Your task to perform on an android device: toggle show notifications on the lock screen Image 0: 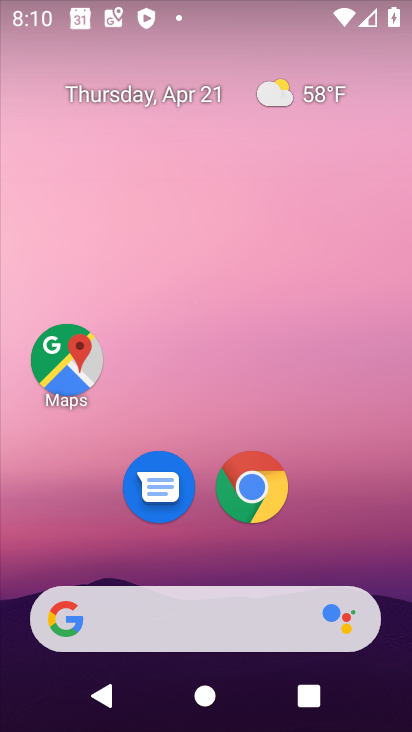
Step 0: drag from (329, 481) to (291, 40)
Your task to perform on an android device: toggle show notifications on the lock screen Image 1: 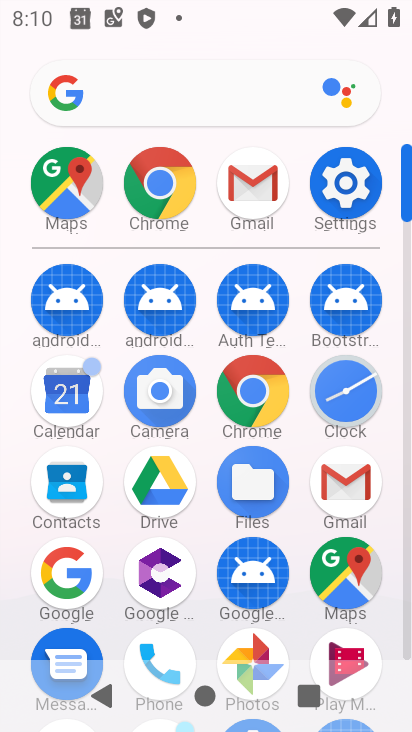
Step 1: click (341, 179)
Your task to perform on an android device: toggle show notifications on the lock screen Image 2: 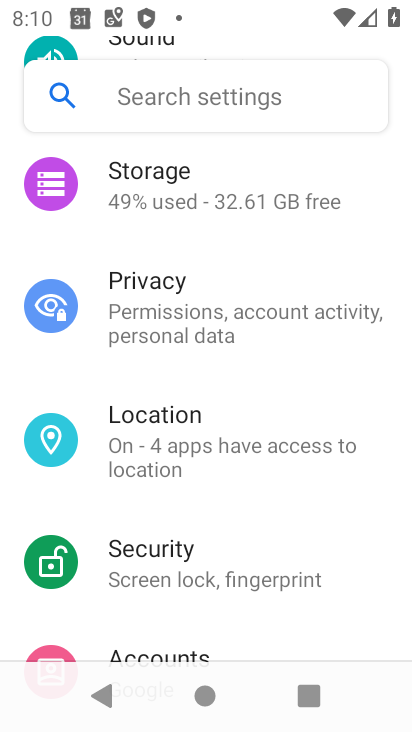
Step 2: drag from (299, 213) to (320, 590)
Your task to perform on an android device: toggle show notifications on the lock screen Image 3: 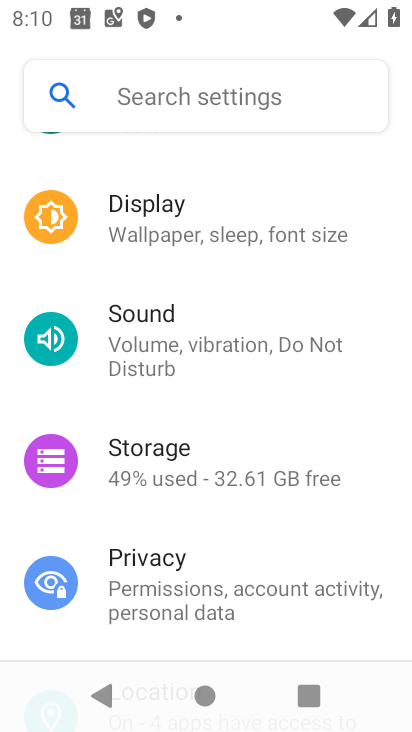
Step 3: drag from (285, 279) to (293, 585)
Your task to perform on an android device: toggle show notifications on the lock screen Image 4: 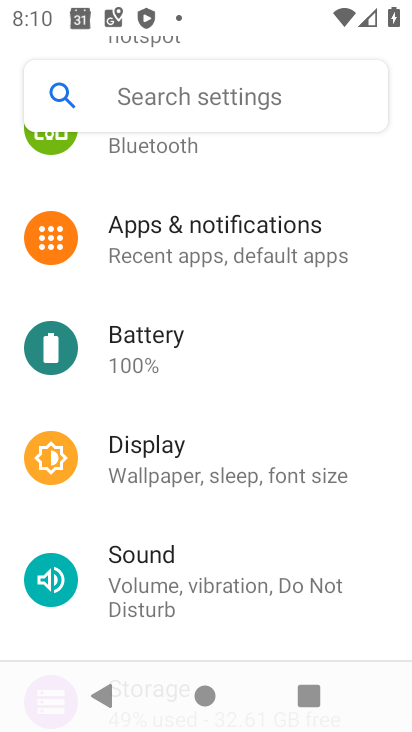
Step 4: click (271, 241)
Your task to perform on an android device: toggle show notifications on the lock screen Image 5: 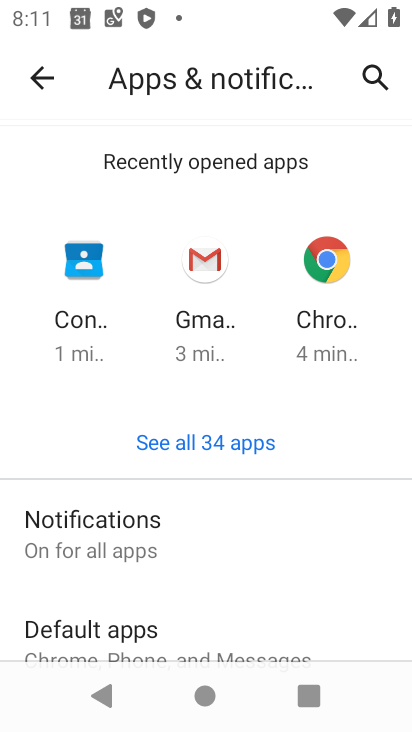
Step 5: drag from (240, 429) to (259, 172)
Your task to perform on an android device: toggle show notifications on the lock screen Image 6: 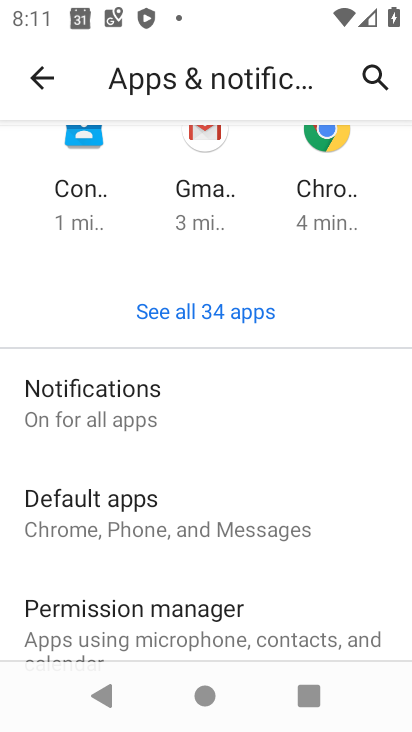
Step 6: click (168, 393)
Your task to perform on an android device: toggle show notifications on the lock screen Image 7: 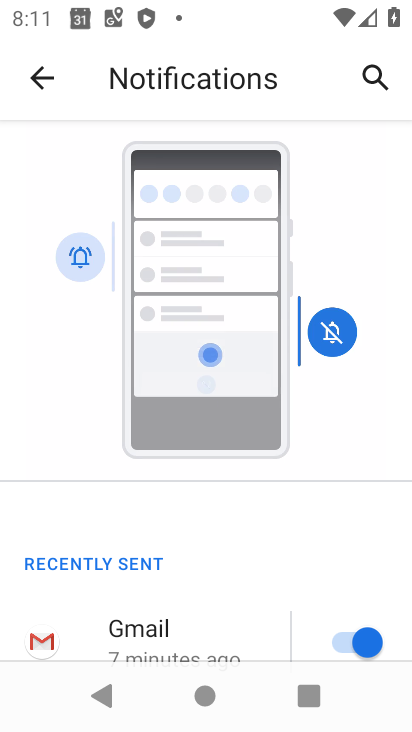
Step 7: drag from (182, 616) to (192, 182)
Your task to perform on an android device: toggle show notifications on the lock screen Image 8: 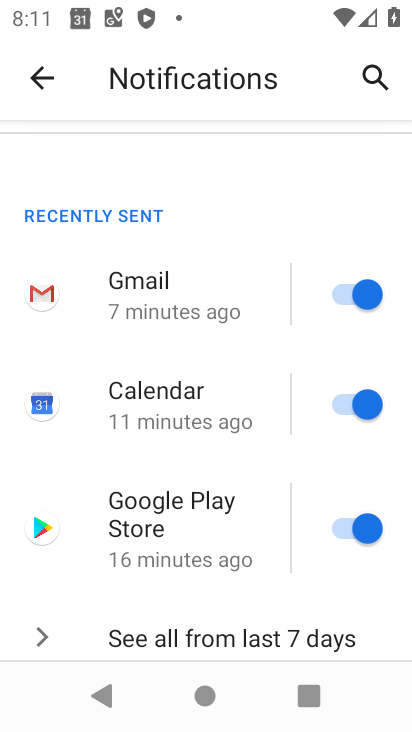
Step 8: drag from (256, 493) to (264, 185)
Your task to perform on an android device: toggle show notifications on the lock screen Image 9: 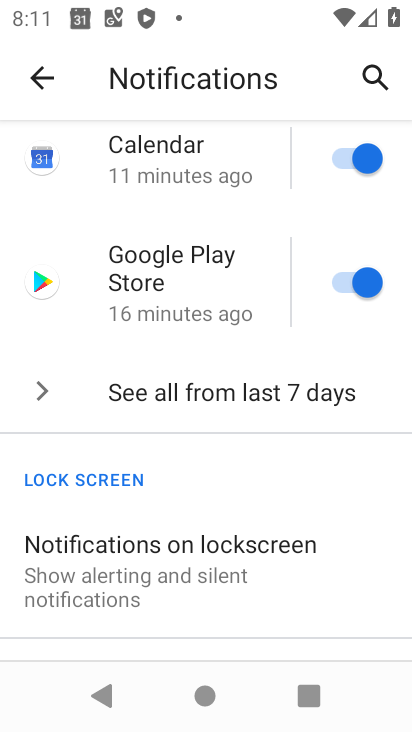
Step 9: click (200, 569)
Your task to perform on an android device: toggle show notifications on the lock screen Image 10: 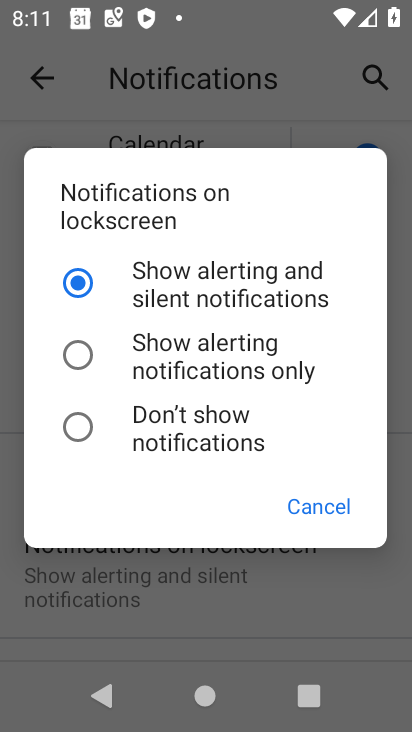
Step 10: click (140, 368)
Your task to perform on an android device: toggle show notifications on the lock screen Image 11: 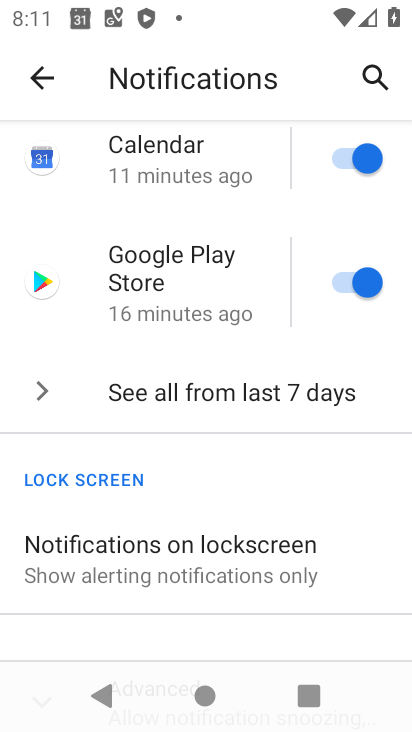
Step 11: task complete